Your task to perform on an android device: Go to Android settings Image 0: 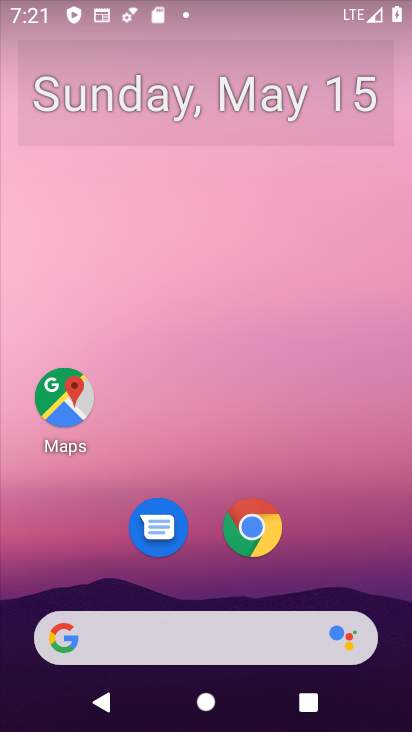
Step 0: drag from (356, 557) to (296, 188)
Your task to perform on an android device: Go to Android settings Image 1: 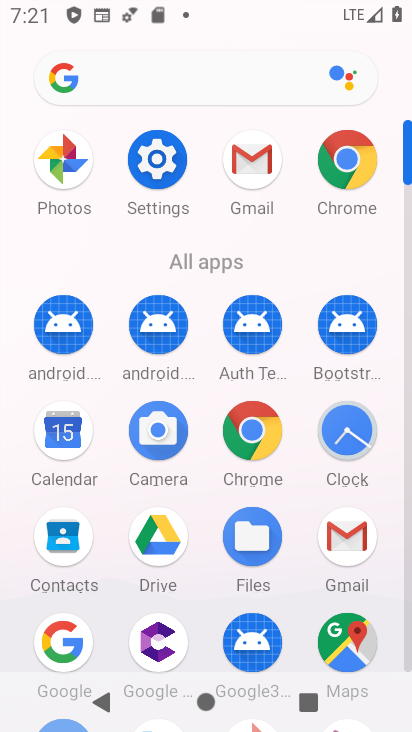
Step 1: click (149, 180)
Your task to perform on an android device: Go to Android settings Image 2: 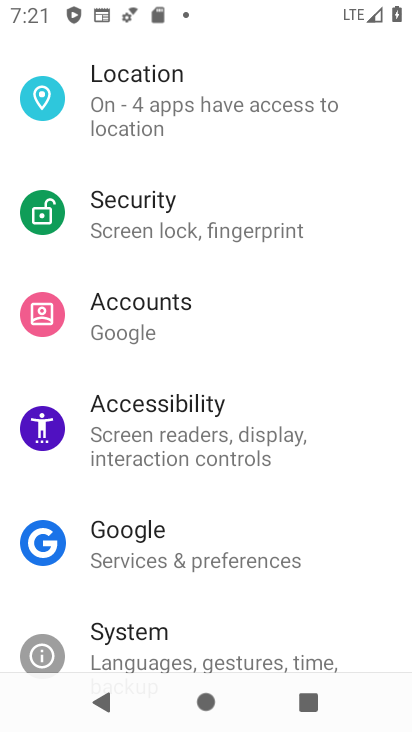
Step 2: task complete